Your task to perform on an android device: Play the latest video from the BBC Image 0: 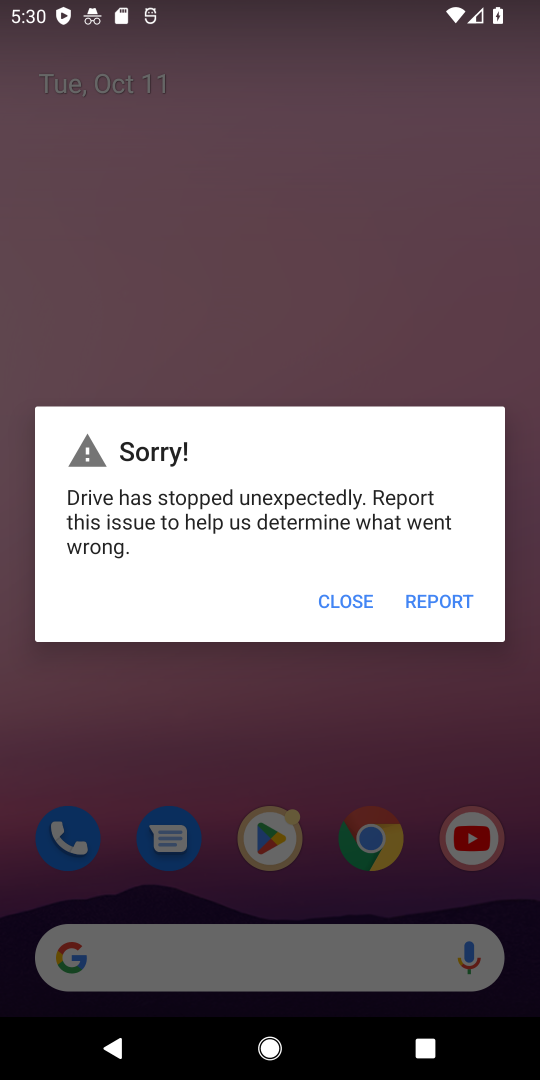
Step 0: click (328, 606)
Your task to perform on an android device: Play the latest video from the BBC Image 1: 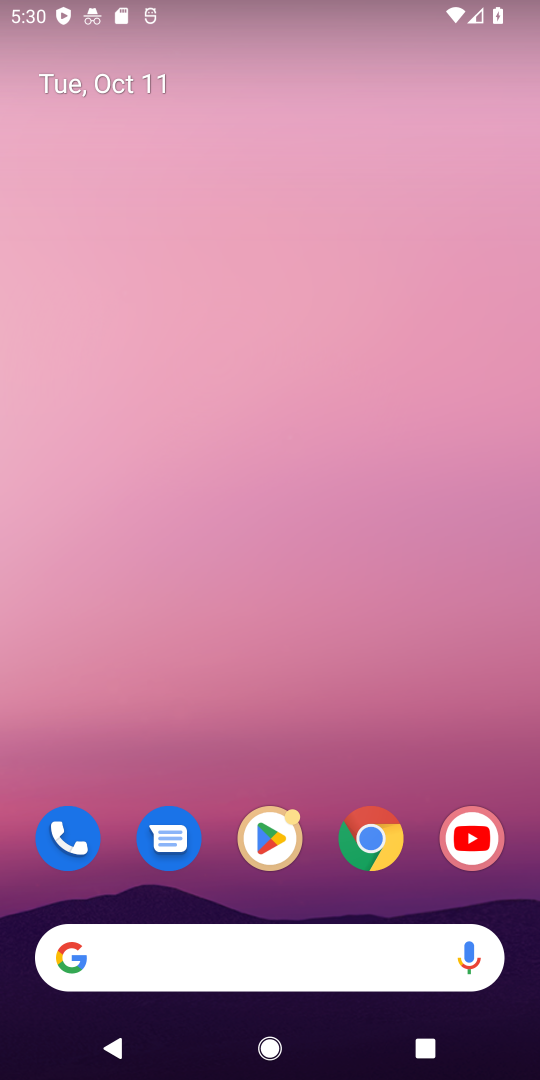
Step 1: click (379, 837)
Your task to perform on an android device: Play the latest video from the BBC Image 2: 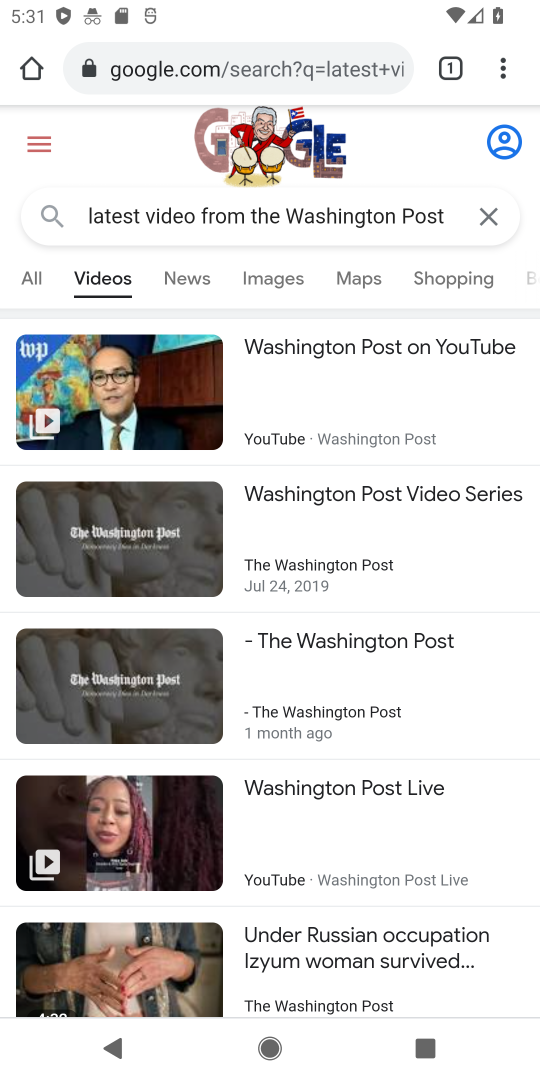
Step 2: click (284, 70)
Your task to perform on an android device: Play the latest video from the BBC Image 3: 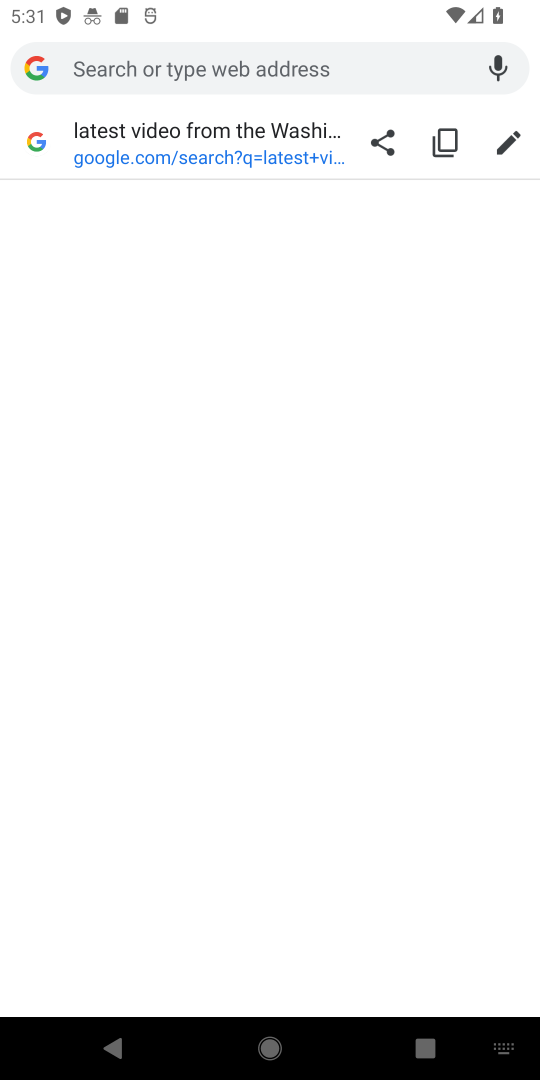
Step 3: type "latest video from the BBC"
Your task to perform on an android device: Play the latest video from the BBC Image 4: 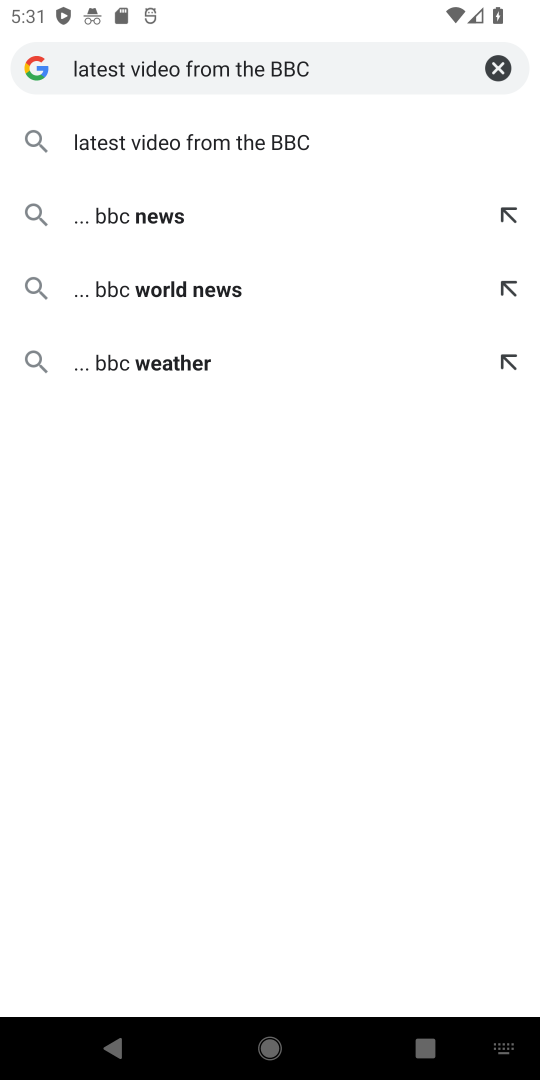
Step 4: click (217, 143)
Your task to perform on an android device: Play the latest video from the BBC Image 5: 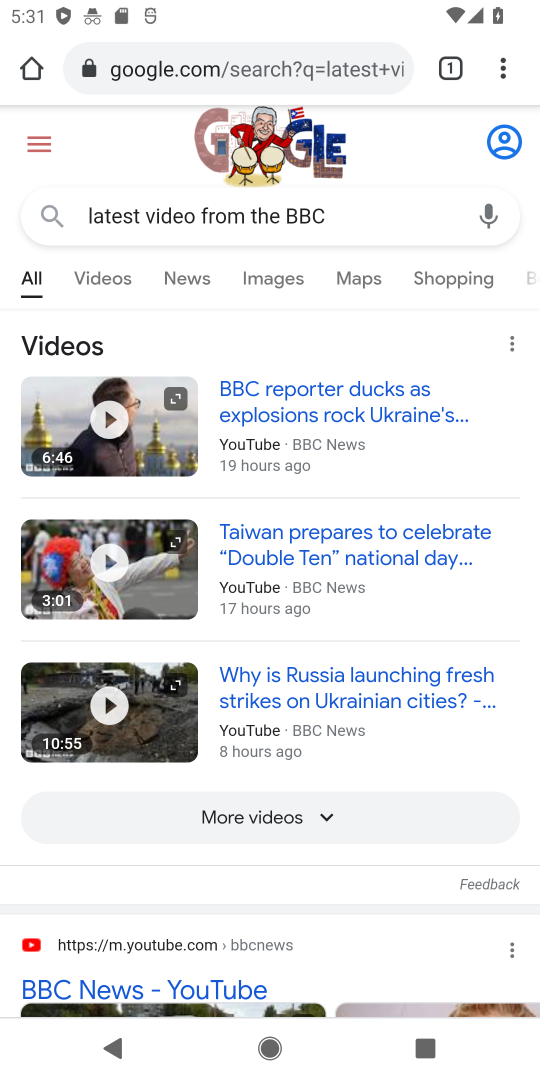
Step 5: click (97, 988)
Your task to perform on an android device: Play the latest video from the BBC Image 6: 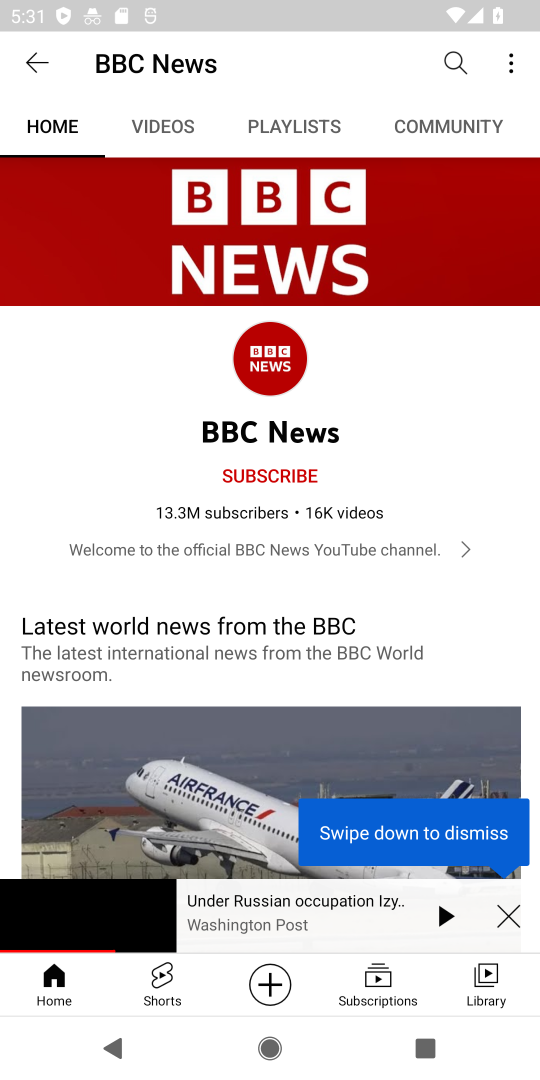
Step 6: click (163, 129)
Your task to perform on an android device: Play the latest video from the BBC Image 7: 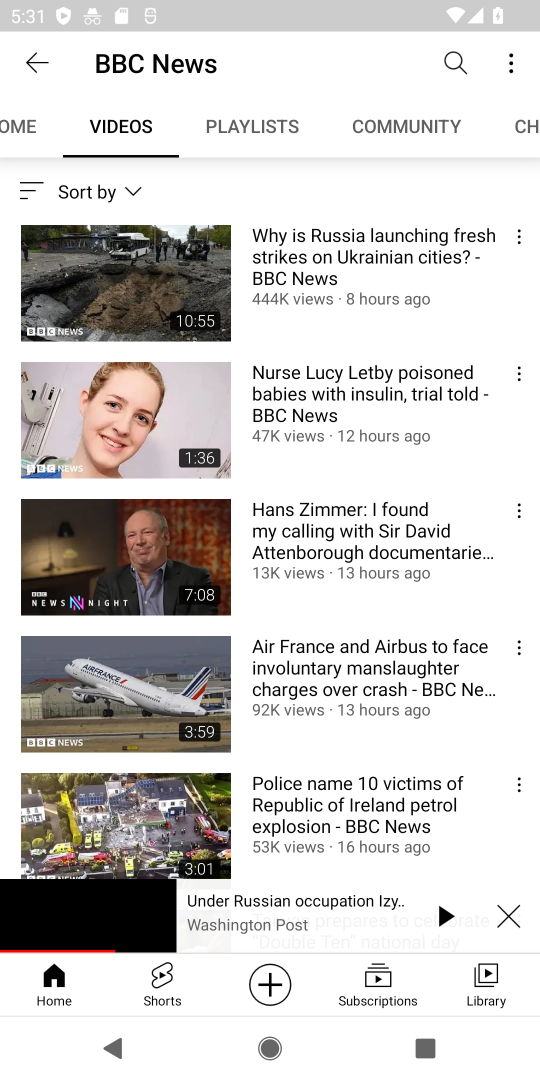
Step 7: click (144, 262)
Your task to perform on an android device: Play the latest video from the BBC Image 8: 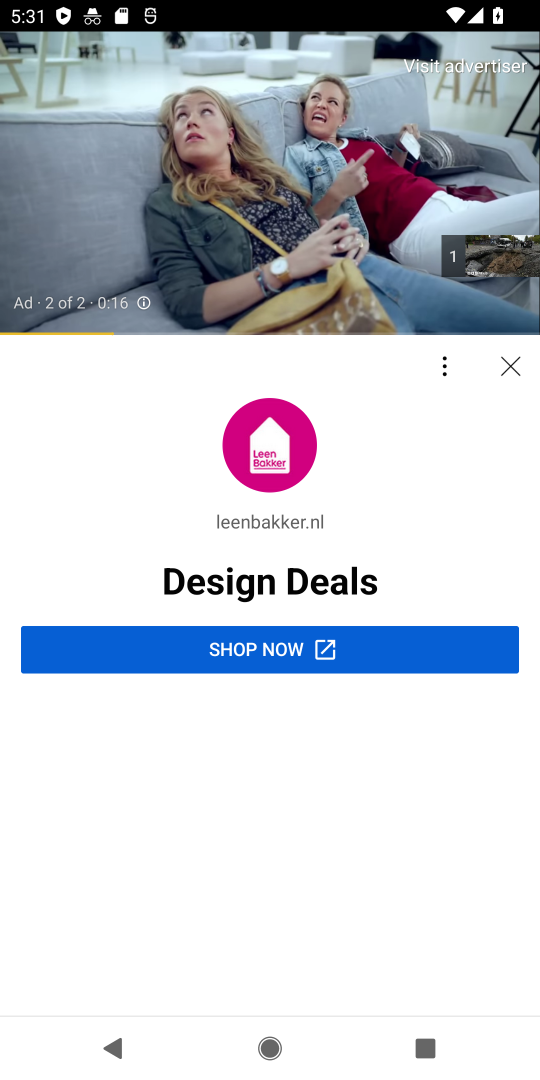
Step 8: click (511, 365)
Your task to perform on an android device: Play the latest video from the BBC Image 9: 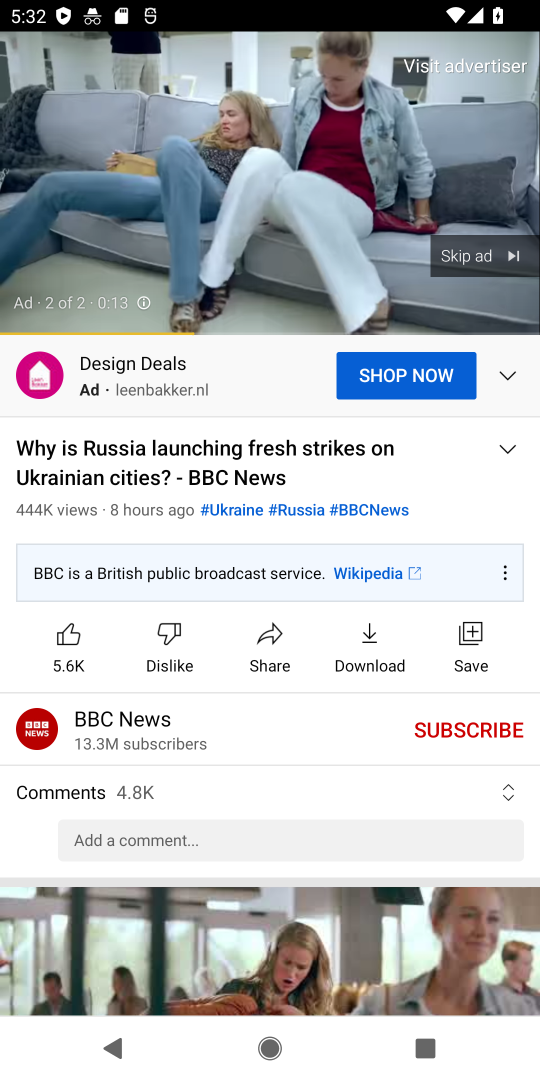
Step 9: click (474, 262)
Your task to perform on an android device: Play the latest video from the BBC Image 10: 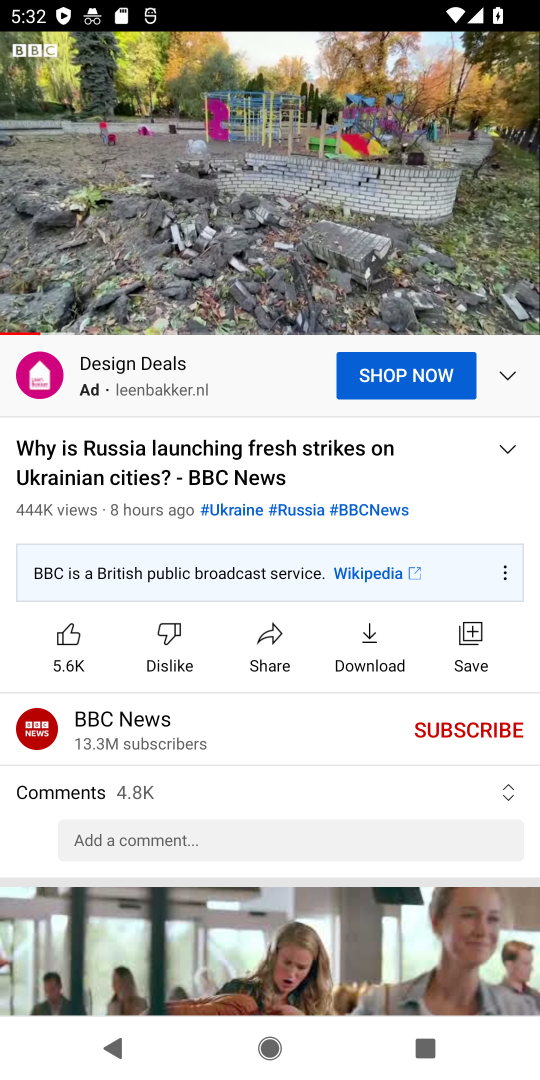
Step 10: task complete